Your task to perform on an android device: Go to location settings Image 0: 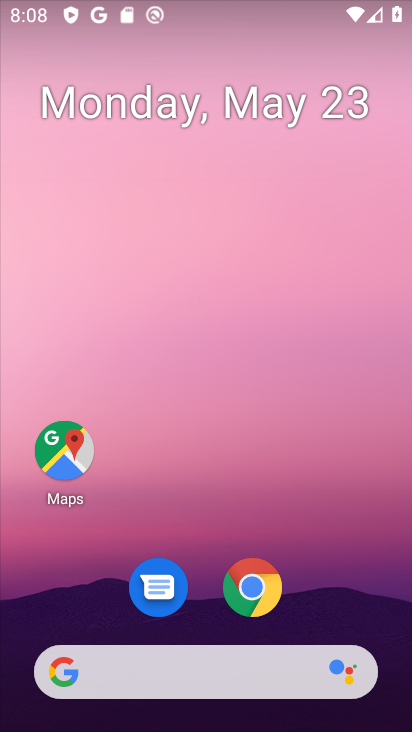
Step 0: drag from (188, 556) to (271, 53)
Your task to perform on an android device: Go to location settings Image 1: 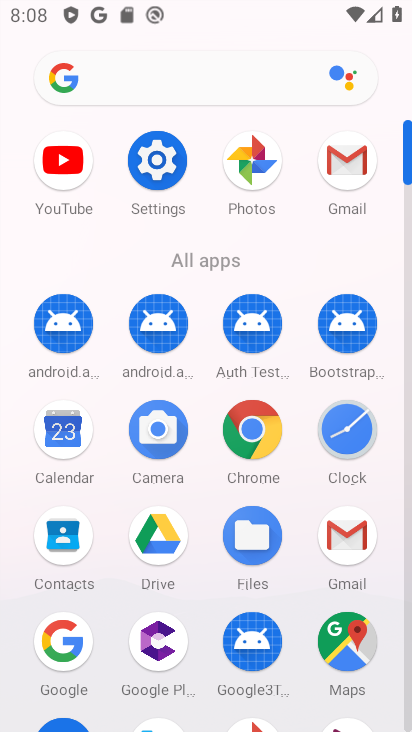
Step 1: click (154, 152)
Your task to perform on an android device: Go to location settings Image 2: 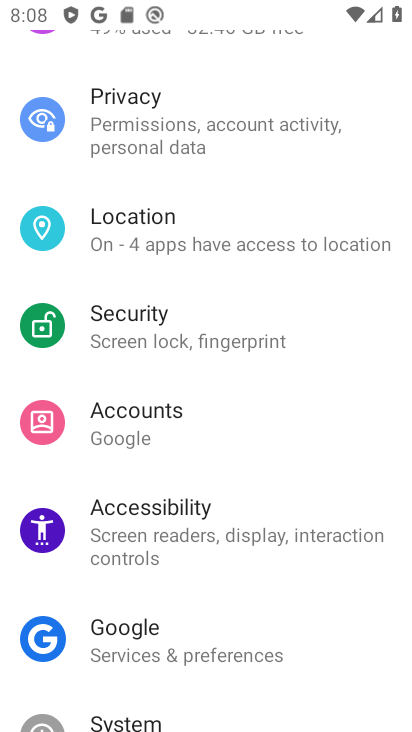
Step 2: click (164, 220)
Your task to perform on an android device: Go to location settings Image 3: 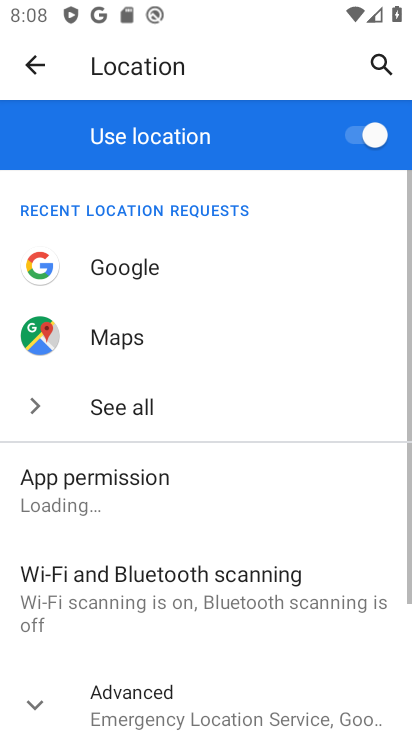
Step 3: task complete